Your task to perform on an android device: Open Chrome and go to settings Image 0: 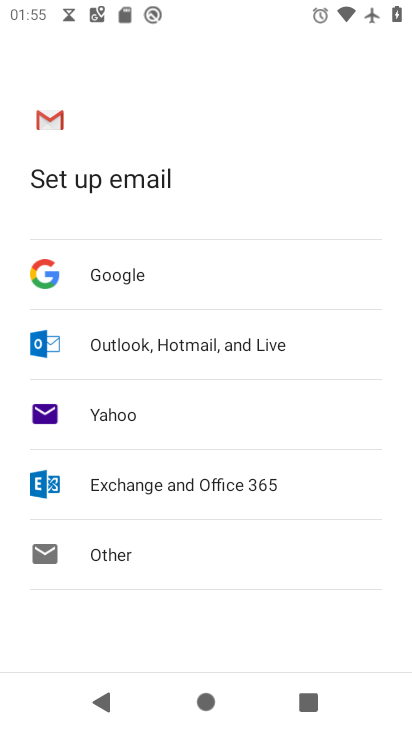
Step 0: press home button
Your task to perform on an android device: Open Chrome and go to settings Image 1: 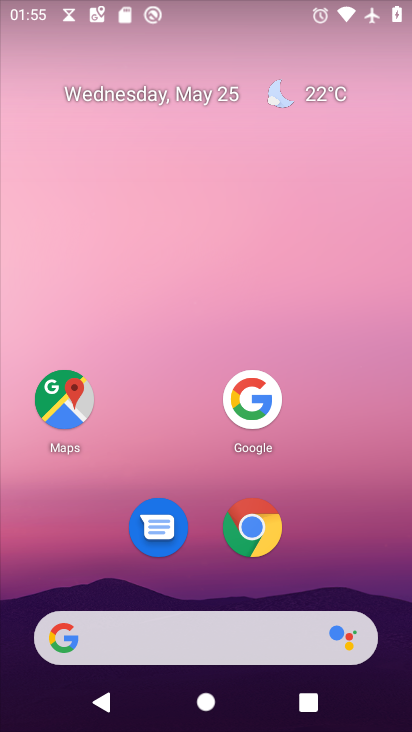
Step 1: click (245, 532)
Your task to perform on an android device: Open Chrome and go to settings Image 2: 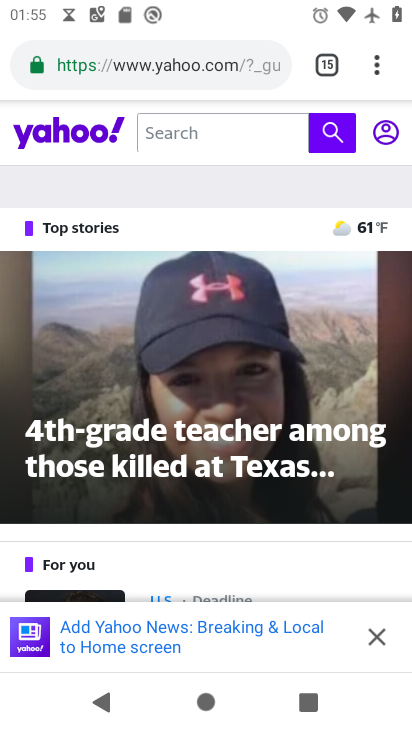
Step 2: task complete